Your task to perform on an android device: open app "Pluto TV - Live TV and Movies" (install if not already installed) Image 0: 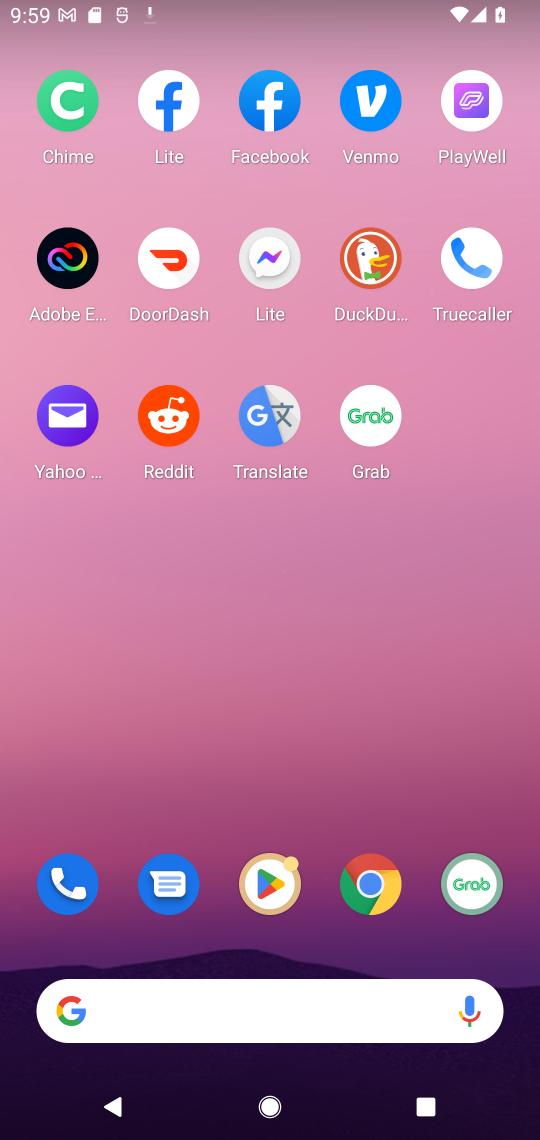
Step 0: click (288, 885)
Your task to perform on an android device: open app "Pluto TV - Live TV and Movies" (install if not already installed) Image 1: 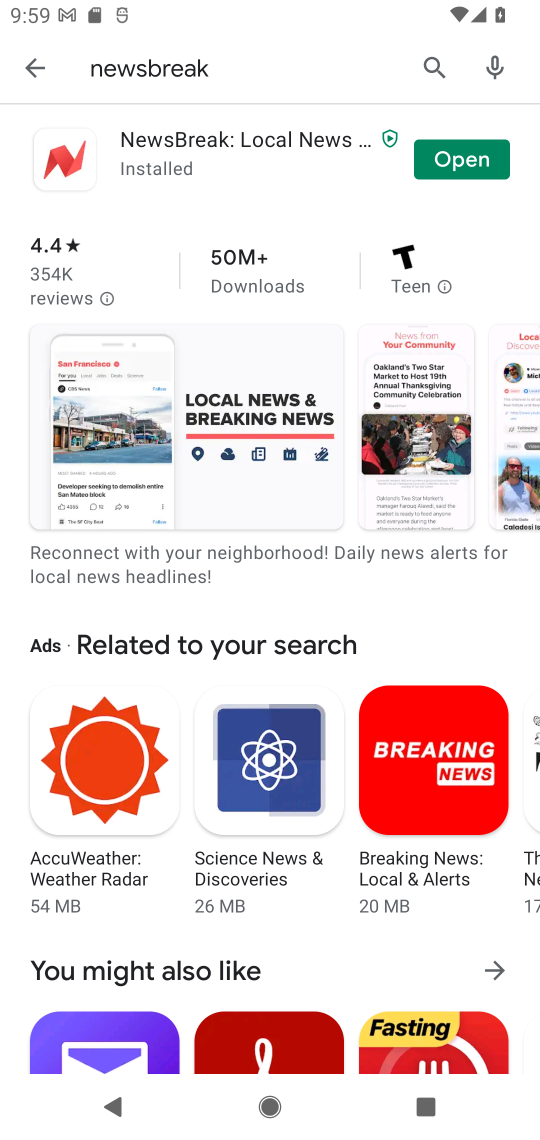
Step 1: click (430, 79)
Your task to perform on an android device: open app "Pluto TV - Live TV and Movies" (install if not already installed) Image 2: 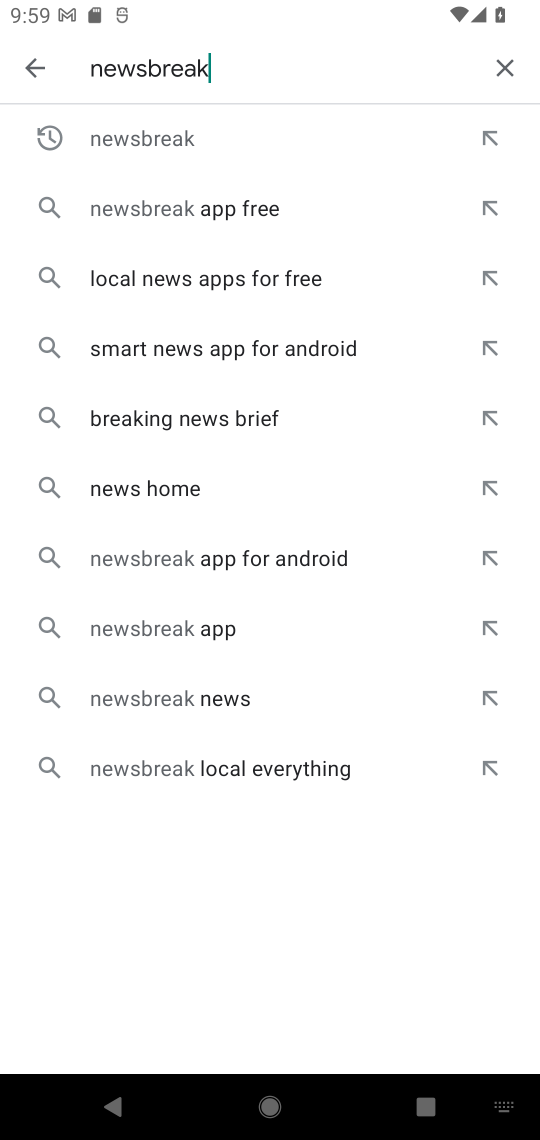
Step 2: click (494, 87)
Your task to perform on an android device: open app "Pluto TV - Live TV and Movies" (install if not already installed) Image 3: 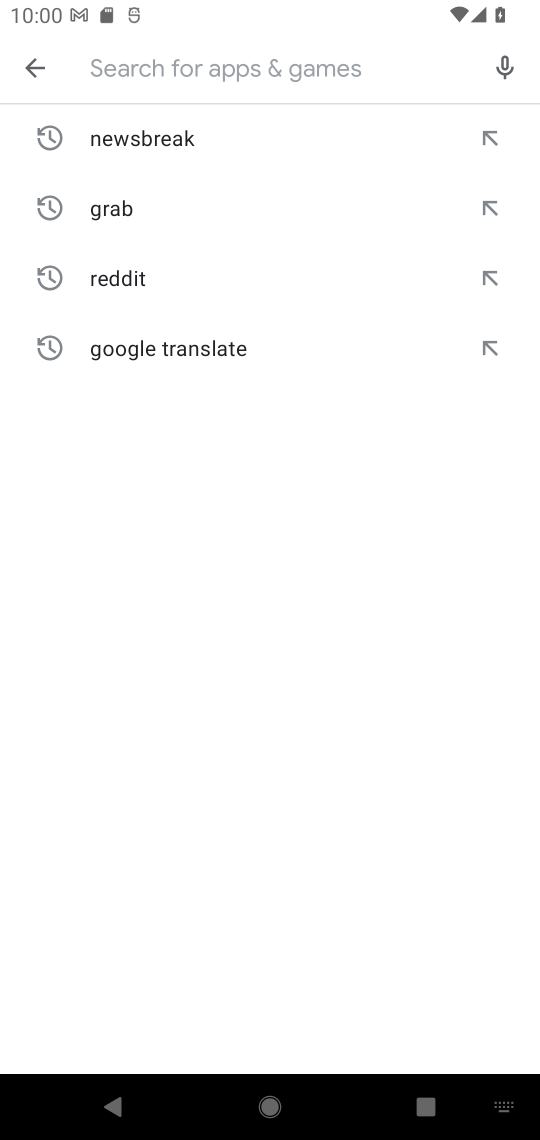
Step 3: type "pluto"
Your task to perform on an android device: open app "Pluto TV - Live TV and Movies" (install if not already installed) Image 4: 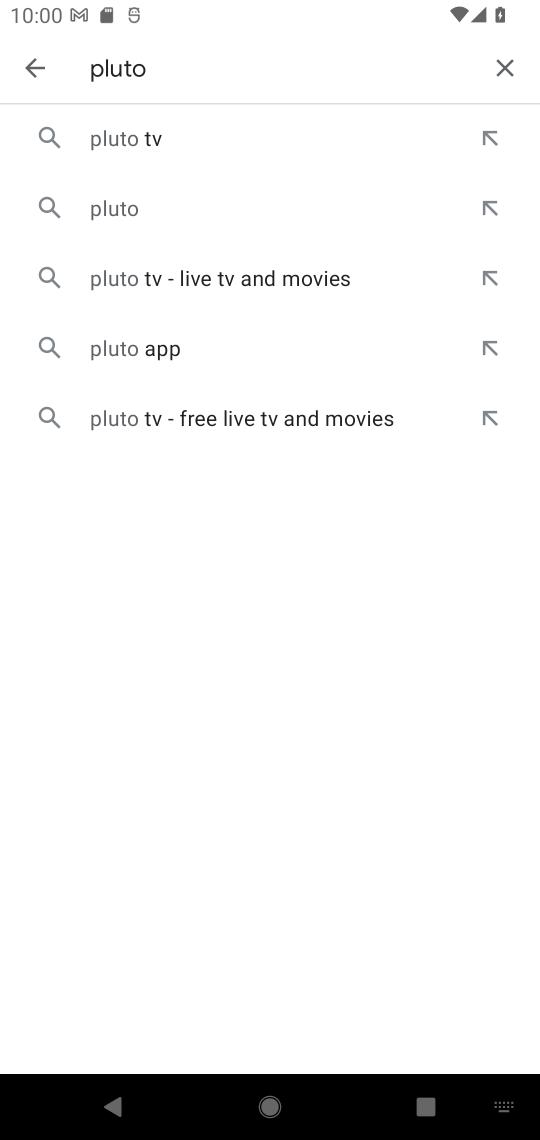
Step 4: click (204, 156)
Your task to perform on an android device: open app "Pluto TV - Live TV and Movies" (install if not already installed) Image 5: 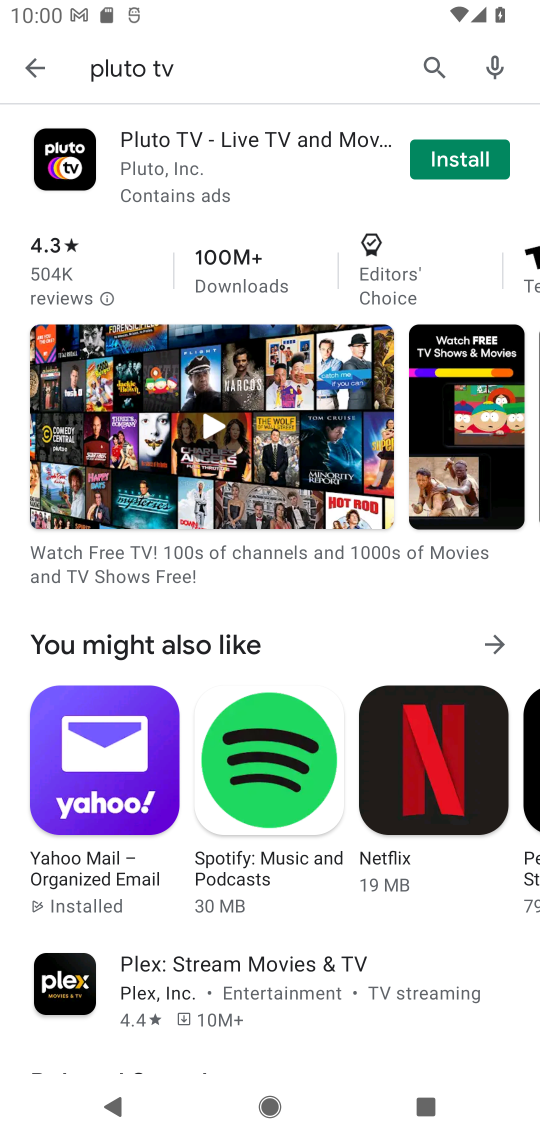
Step 5: click (465, 167)
Your task to perform on an android device: open app "Pluto TV - Live TV and Movies" (install if not already installed) Image 6: 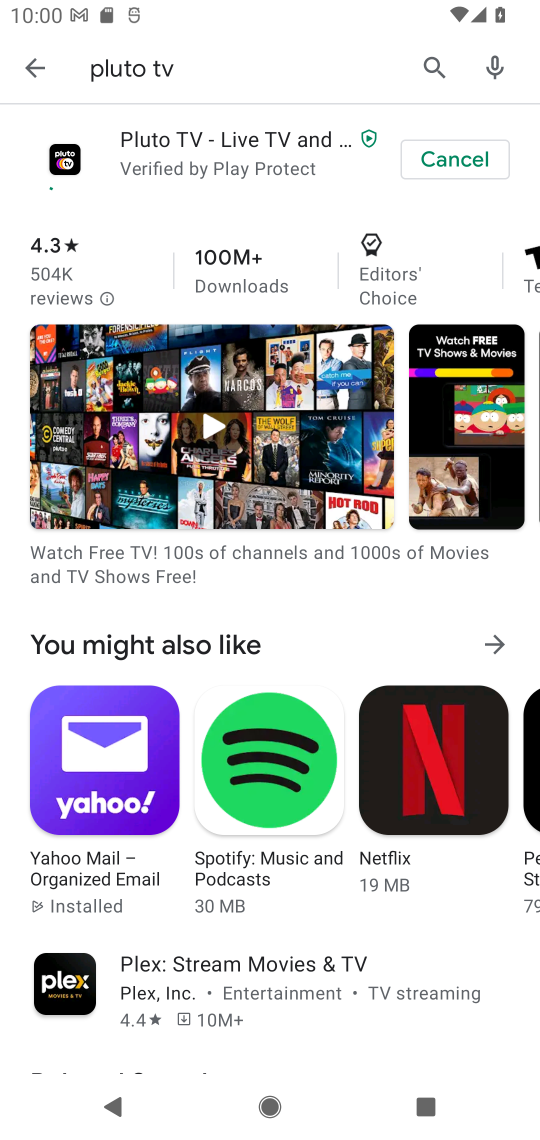
Step 6: task complete